Your task to perform on an android device: Open eBay Image 0: 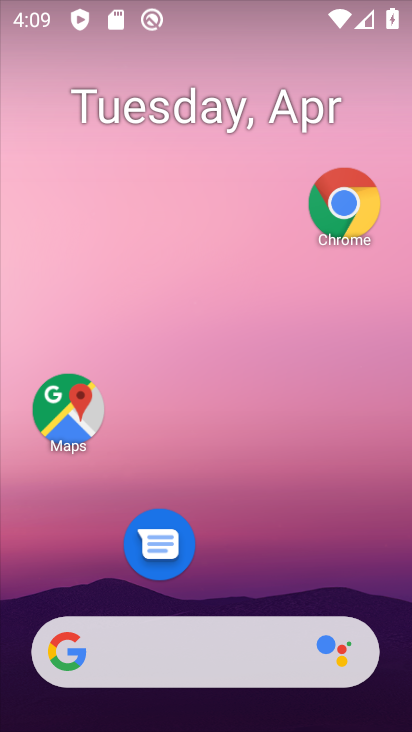
Step 0: click (329, 206)
Your task to perform on an android device: Open eBay Image 1: 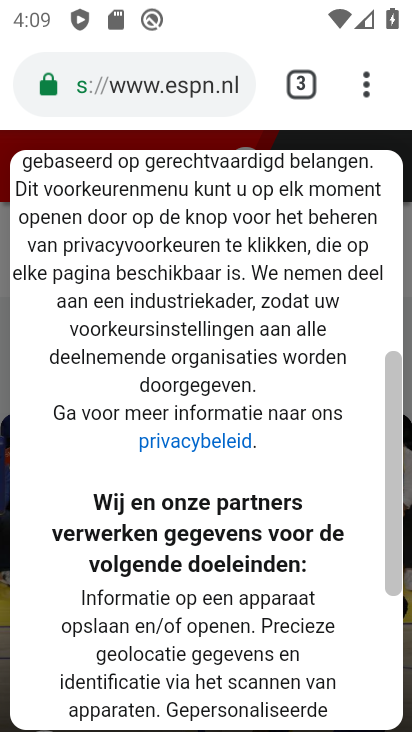
Step 1: click (172, 84)
Your task to perform on an android device: Open eBay Image 2: 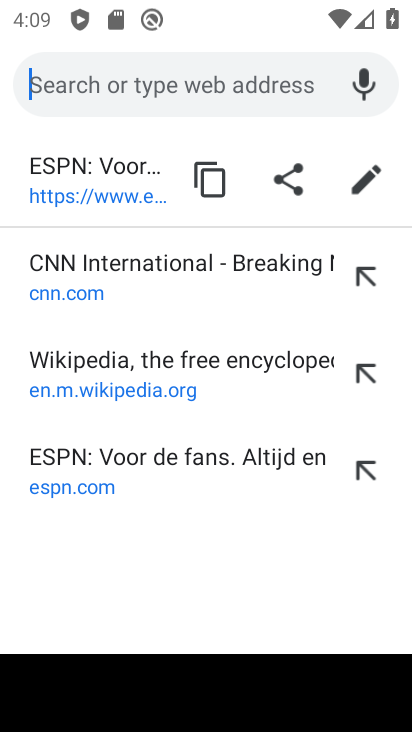
Step 2: type "eBay"
Your task to perform on an android device: Open eBay Image 3: 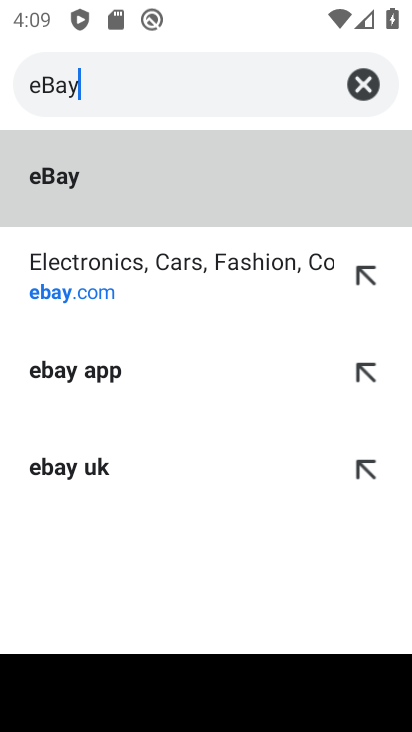
Step 3: click (119, 183)
Your task to perform on an android device: Open eBay Image 4: 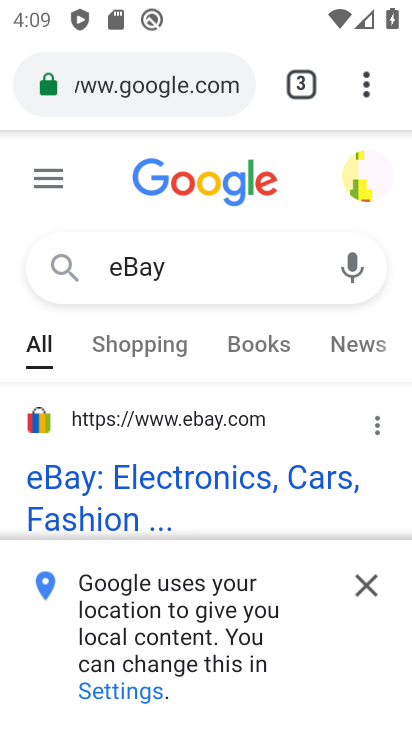
Step 4: click (382, 583)
Your task to perform on an android device: Open eBay Image 5: 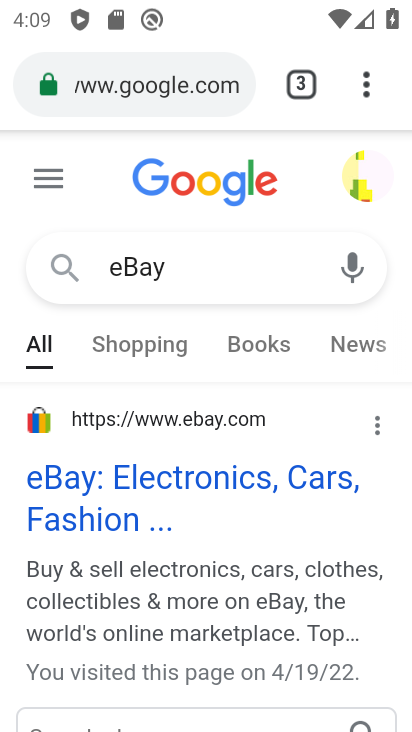
Step 5: task complete